Your task to perform on an android device: move a message to another label in the gmail app Image 0: 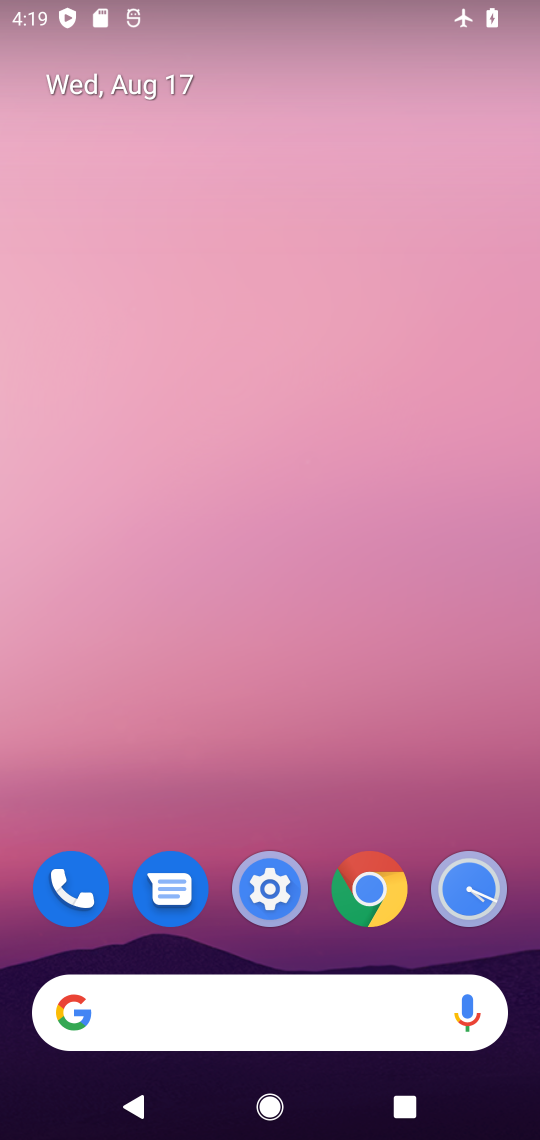
Step 0: drag from (312, 789) to (251, 142)
Your task to perform on an android device: move a message to another label in the gmail app Image 1: 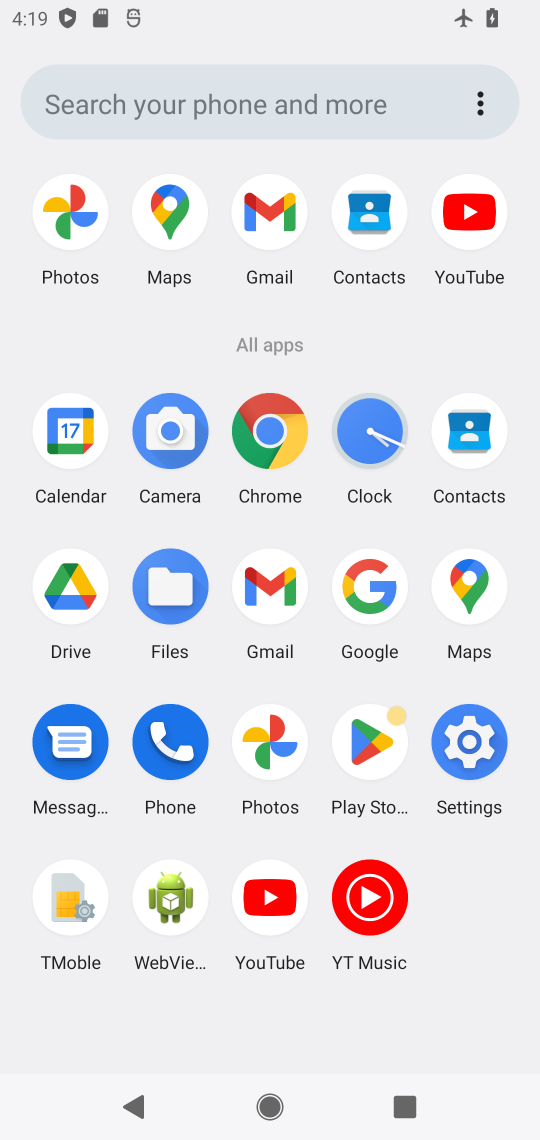
Step 1: click (264, 216)
Your task to perform on an android device: move a message to another label in the gmail app Image 2: 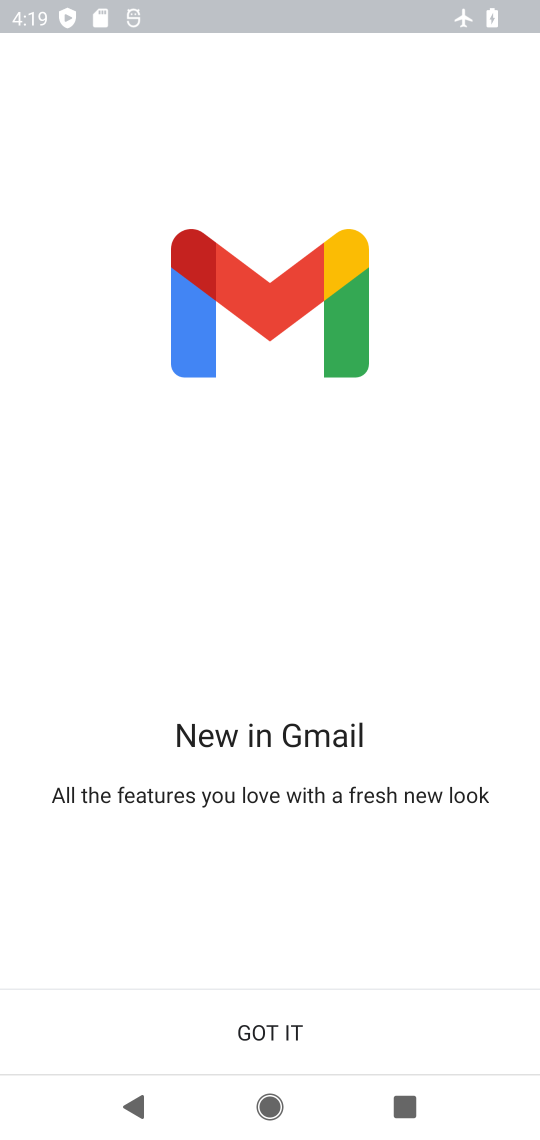
Step 2: click (271, 1022)
Your task to perform on an android device: move a message to another label in the gmail app Image 3: 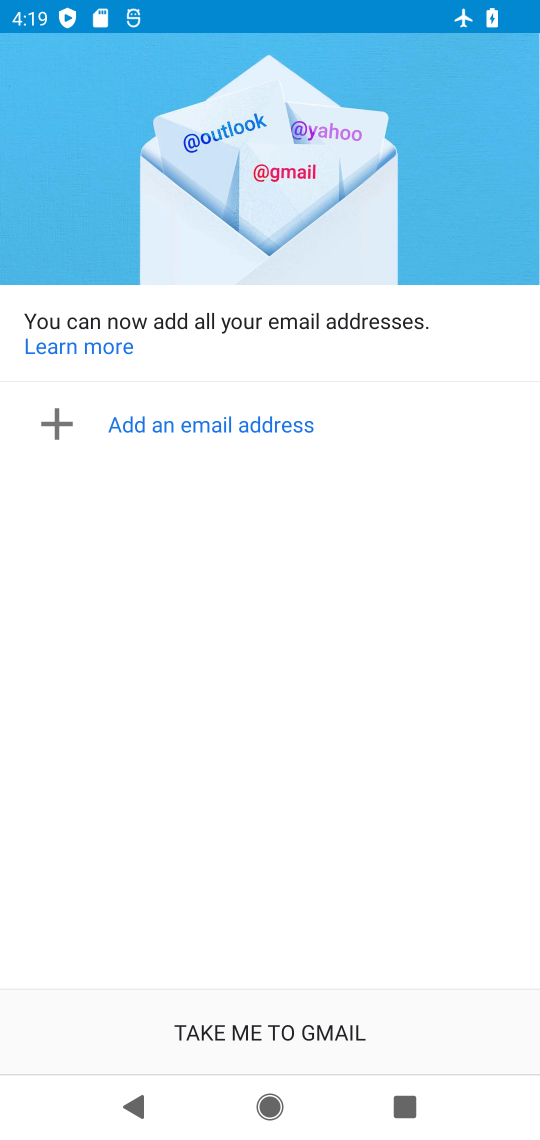
Step 3: click (271, 1022)
Your task to perform on an android device: move a message to another label in the gmail app Image 4: 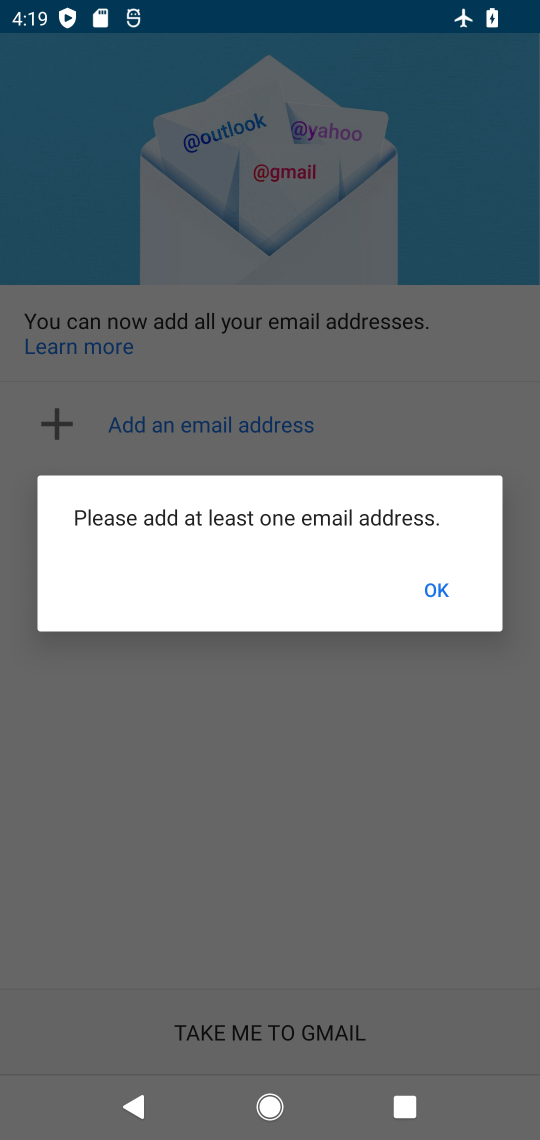
Step 4: task complete